Your task to perform on an android device: star an email in the gmail app Image 0: 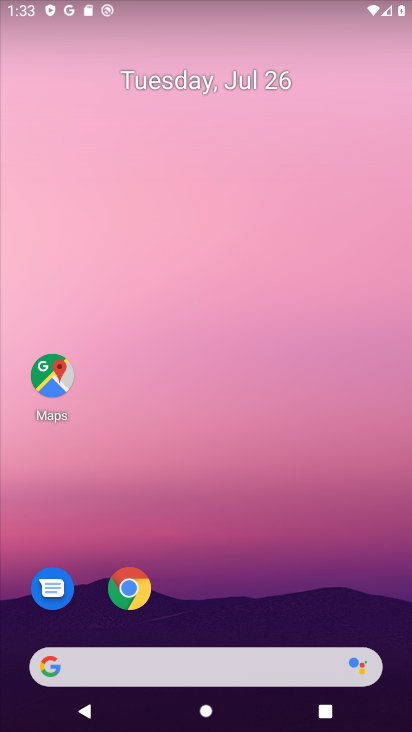
Step 0: drag from (214, 644) to (132, 10)
Your task to perform on an android device: star an email in the gmail app Image 1: 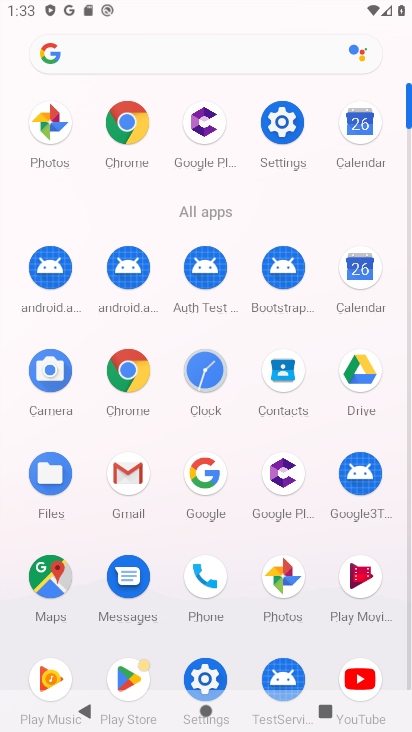
Step 1: click (140, 482)
Your task to perform on an android device: star an email in the gmail app Image 2: 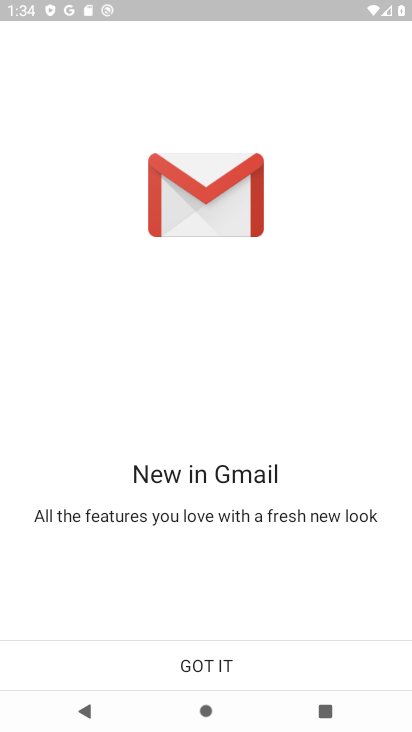
Step 2: click (178, 664)
Your task to perform on an android device: star an email in the gmail app Image 3: 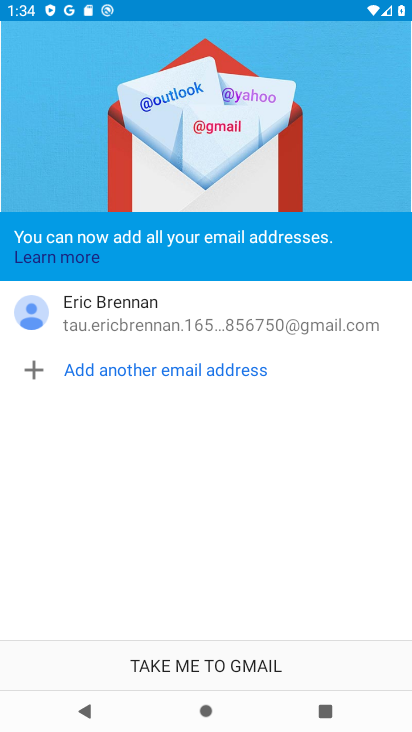
Step 3: click (175, 657)
Your task to perform on an android device: star an email in the gmail app Image 4: 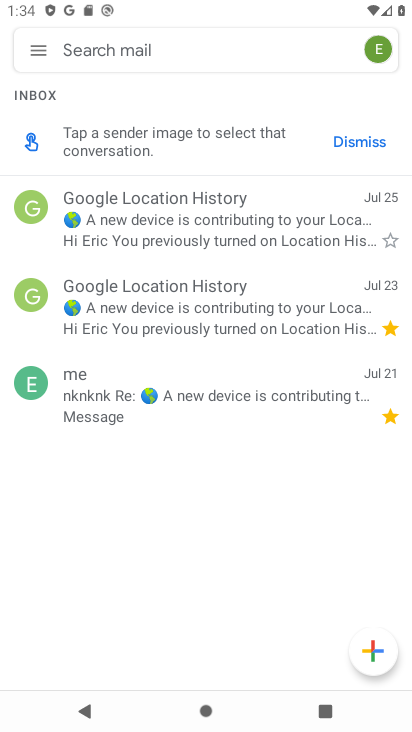
Step 4: click (389, 241)
Your task to perform on an android device: star an email in the gmail app Image 5: 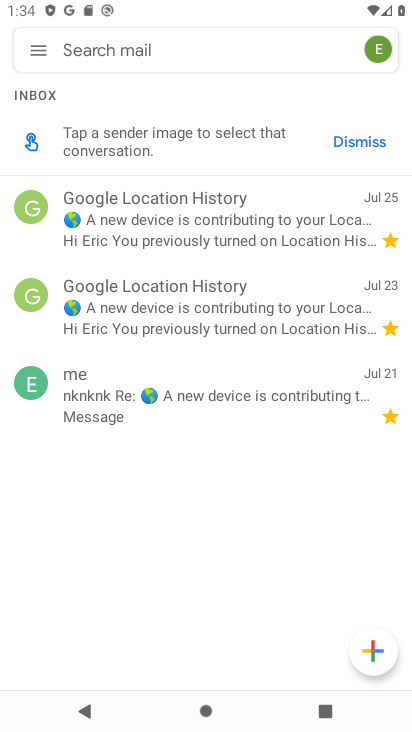
Step 5: task complete